Your task to perform on an android device: delete browsing data in the chrome app Image 0: 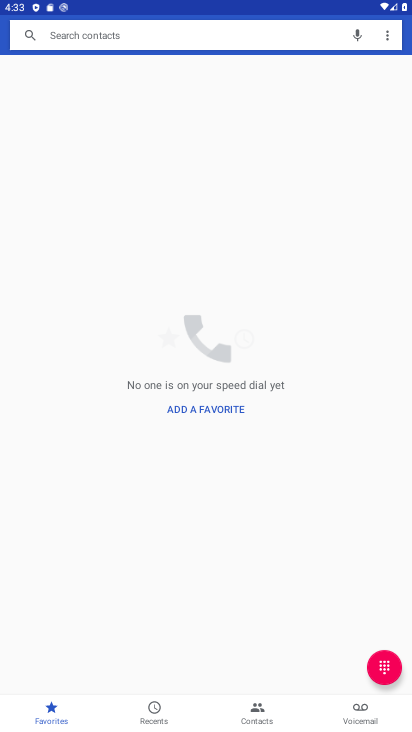
Step 0: drag from (256, 600) to (197, 149)
Your task to perform on an android device: delete browsing data in the chrome app Image 1: 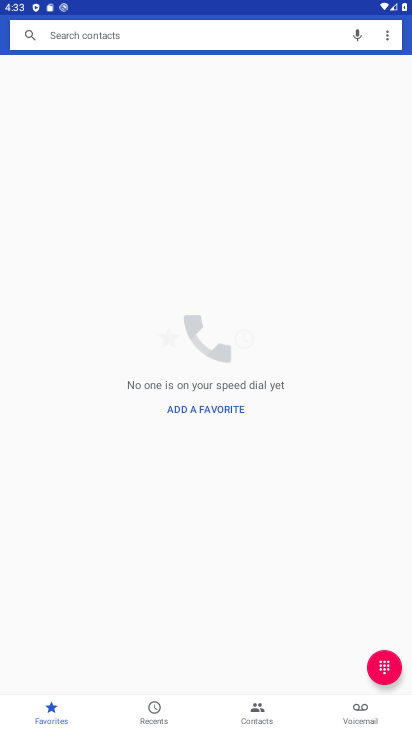
Step 1: drag from (344, 588) to (348, 131)
Your task to perform on an android device: delete browsing data in the chrome app Image 2: 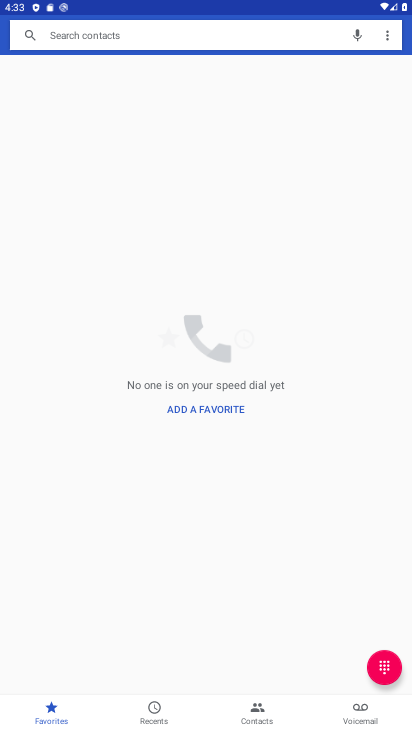
Step 2: press home button
Your task to perform on an android device: delete browsing data in the chrome app Image 3: 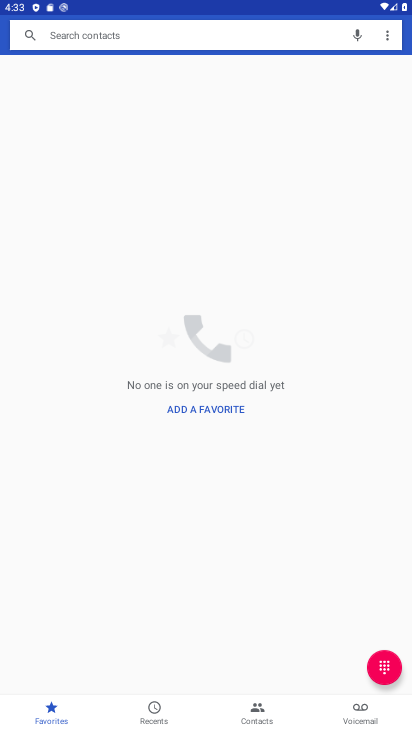
Step 3: drag from (137, 635) to (141, 109)
Your task to perform on an android device: delete browsing data in the chrome app Image 4: 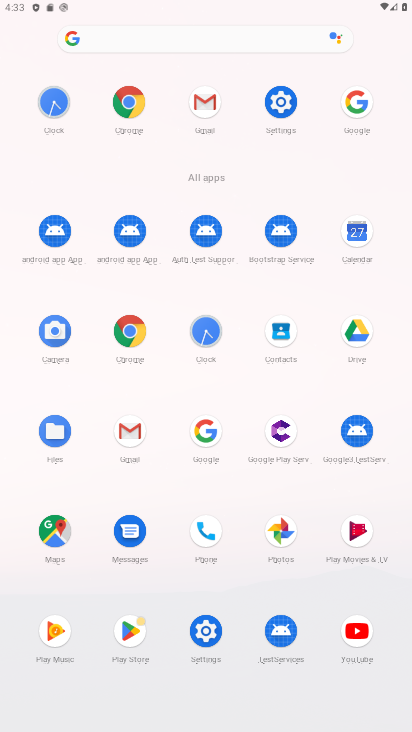
Step 4: click (120, 330)
Your task to perform on an android device: delete browsing data in the chrome app Image 5: 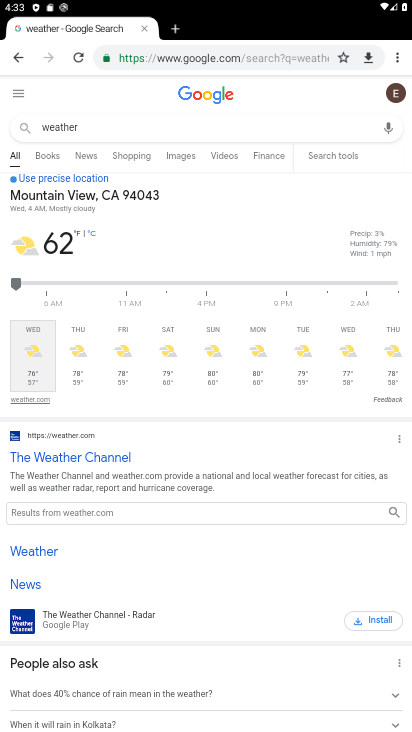
Step 5: drag from (391, 62) to (306, 351)
Your task to perform on an android device: delete browsing data in the chrome app Image 6: 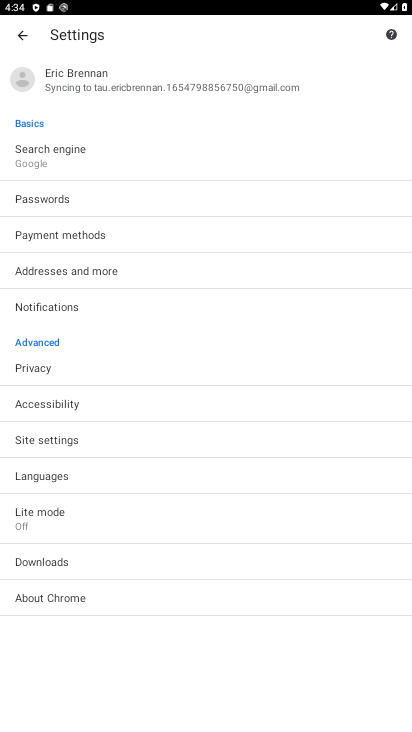
Step 6: click (38, 355)
Your task to perform on an android device: delete browsing data in the chrome app Image 7: 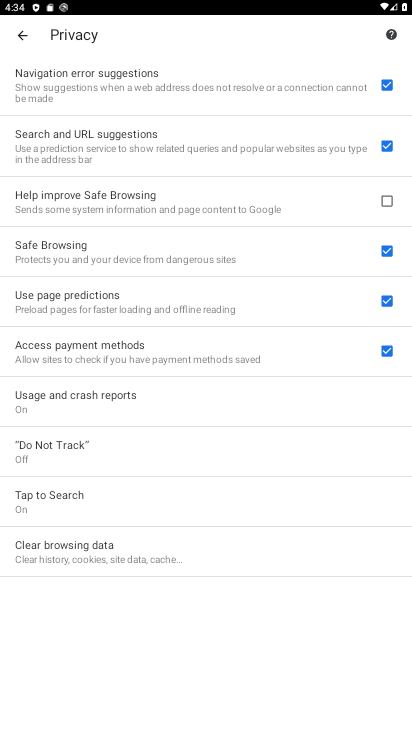
Step 7: click (91, 548)
Your task to perform on an android device: delete browsing data in the chrome app Image 8: 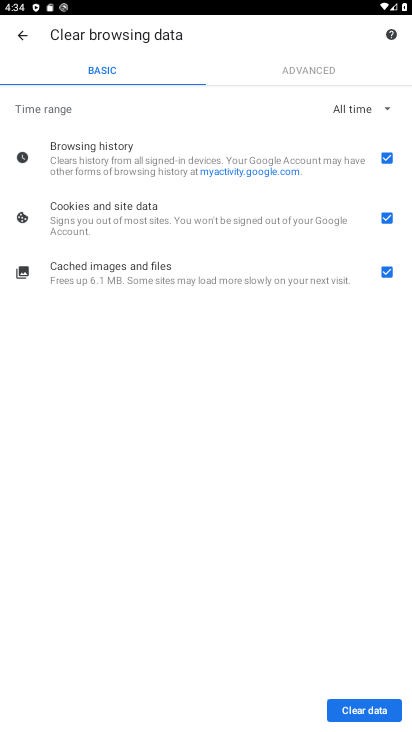
Step 8: click (386, 698)
Your task to perform on an android device: delete browsing data in the chrome app Image 9: 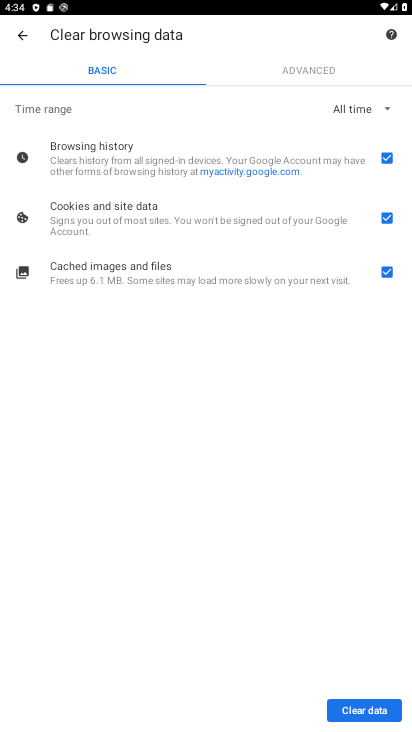
Step 9: click (384, 707)
Your task to perform on an android device: delete browsing data in the chrome app Image 10: 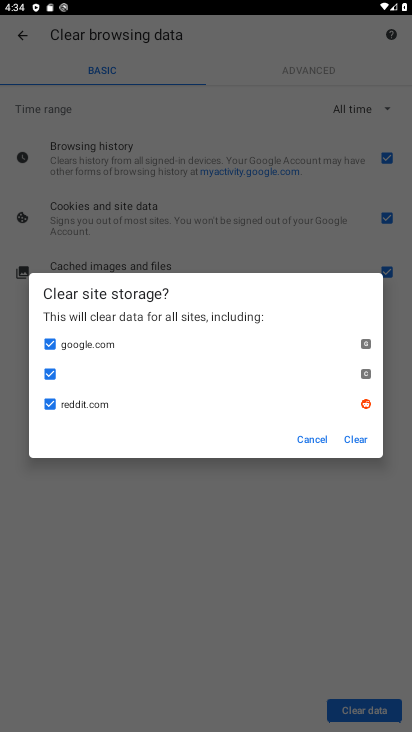
Step 10: click (336, 442)
Your task to perform on an android device: delete browsing data in the chrome app Image 11: 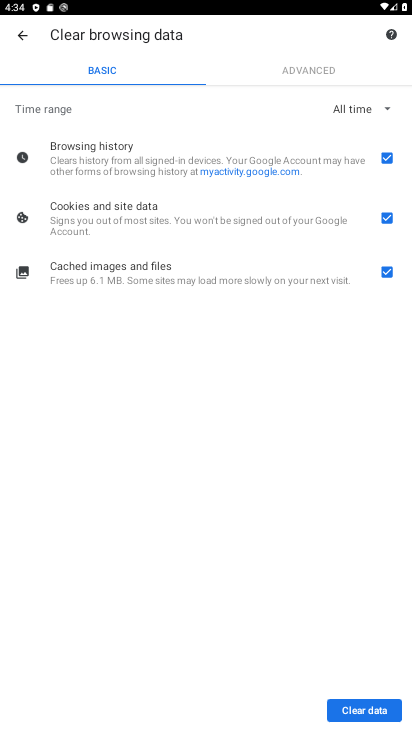
Step 11: click (374, 698)
Your task to perform on an android device: delete browsing data in the chrome app Image 12: 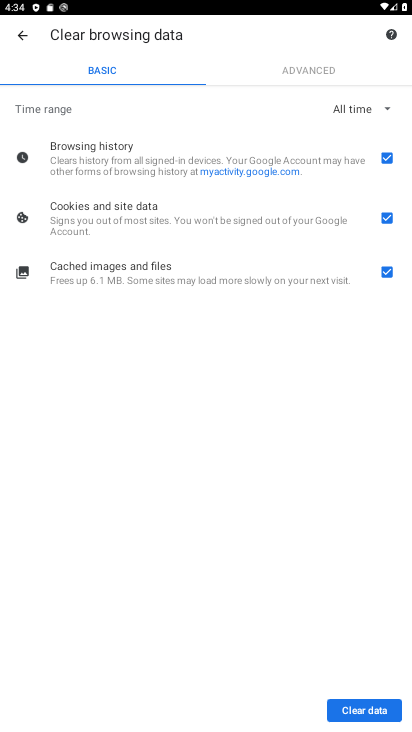
Step 12: click (374, 706)
Your task to perform on an android device: delete browsing data in the chrome app Image 13: 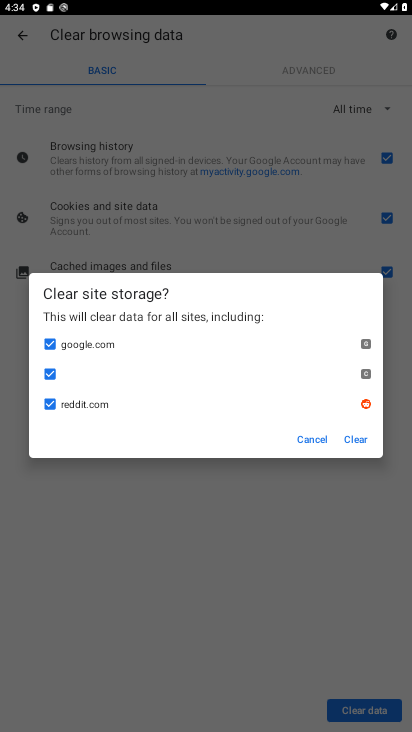
Step 13: click (365, 440)
Your task to perform on an android device: delete browsing data in the chrome app Image 14: 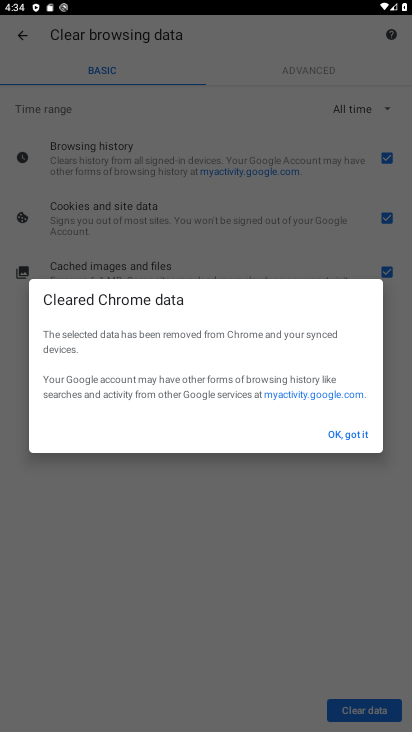
Step 14: click (365, 440)
Your task to perform on an android device: delete browsing data in the chrome app Image 15: 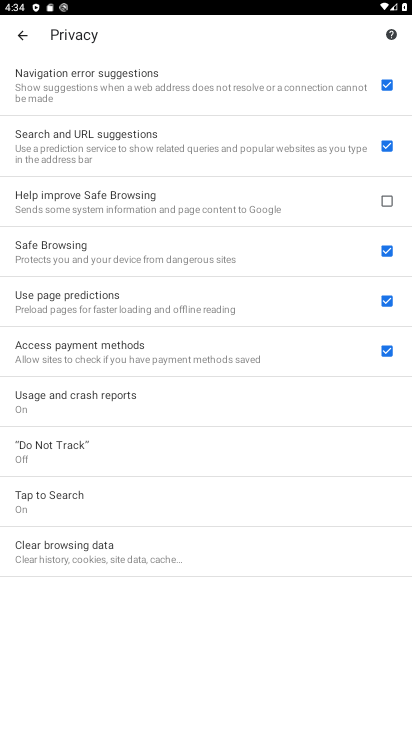
Step 15: task complete